Your task to perform on an android device: set the stopwatch Image 0: 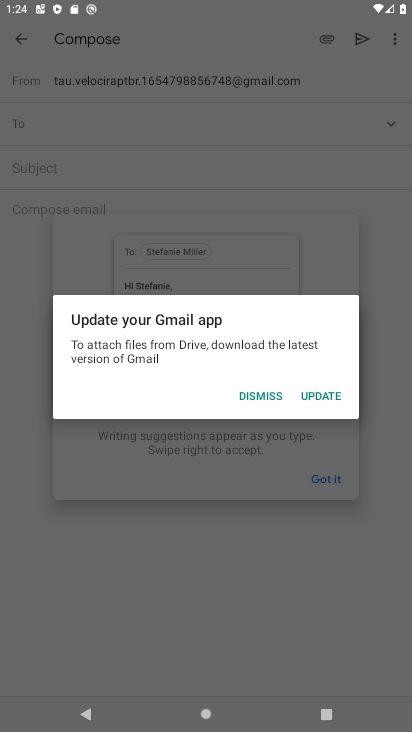
Step 0: press home button
Your task to perform on an android device: set the stopwatch Image 1: 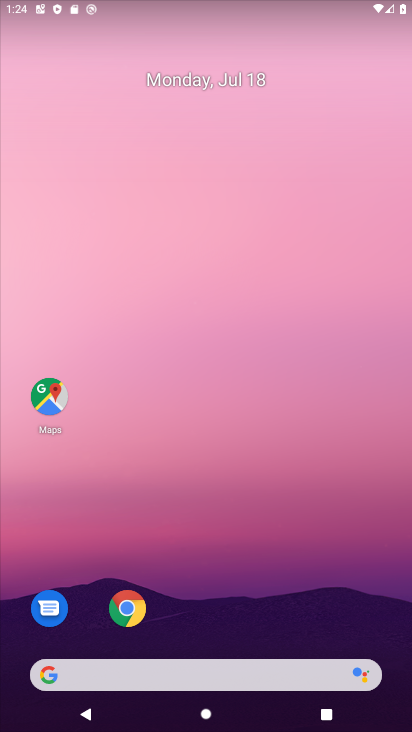
Step 1: drag from (236, 725) to (209, 19)
Your task to perform on an android device: set the stopwatch Image 2: 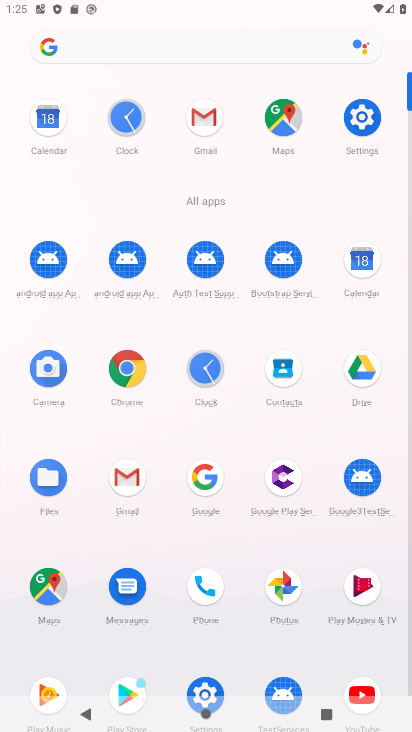
Step 2: click (200, 365)
Your task to perform on an android device: set the stopwatch Image 3: 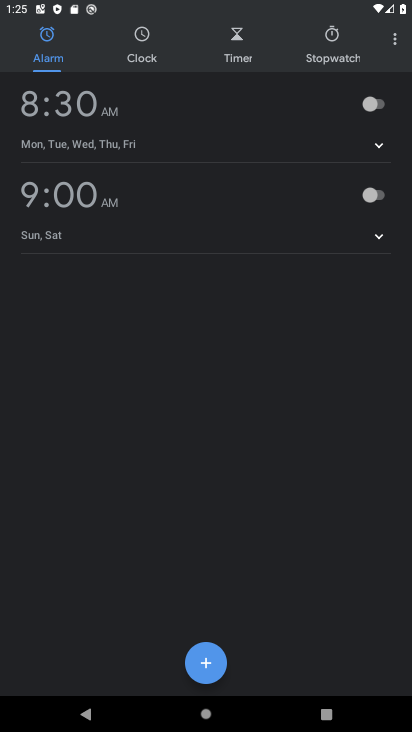
Step 3: click (330, 46)
Your task to perform on an android device: set the stopwatch Image 4: 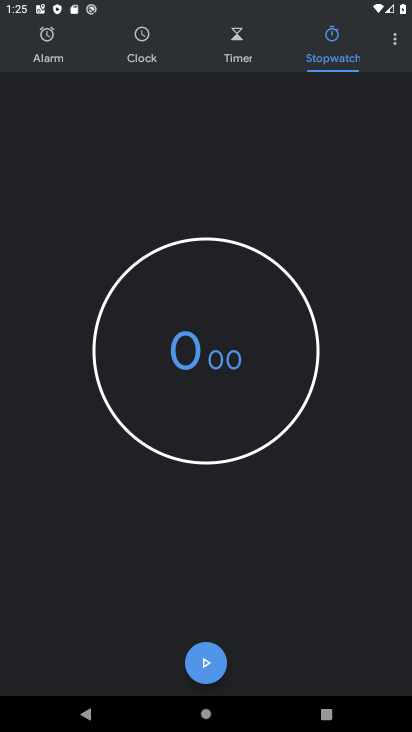
Step 4: click (207, 364)
Your task to perform on an android device: set the stopwatch Image 5: 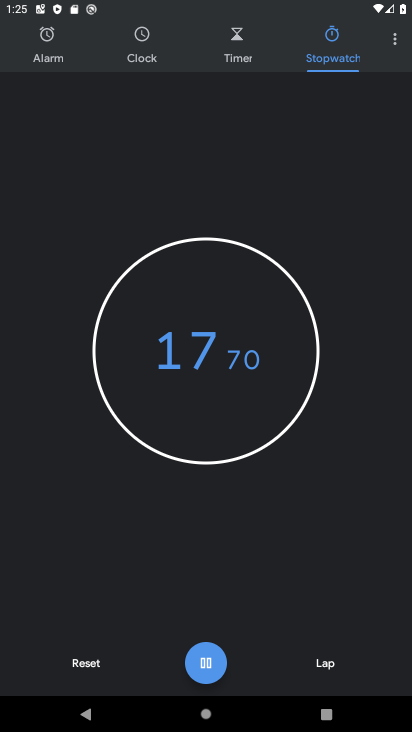
Step 5: task complete